Your task to perform on an android device: Open Youtube and go to "Your channel" Image 0: 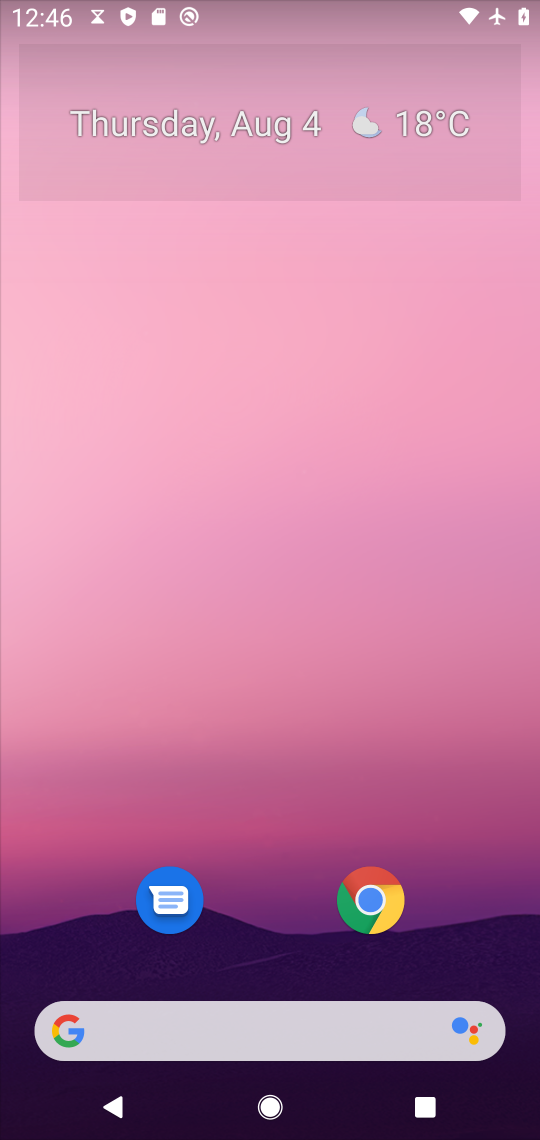
Step 0: drag from (239, 966) to (379, 121)
Your task to perform on an android device: Open Youtube and go to "Your channel" Image 1: 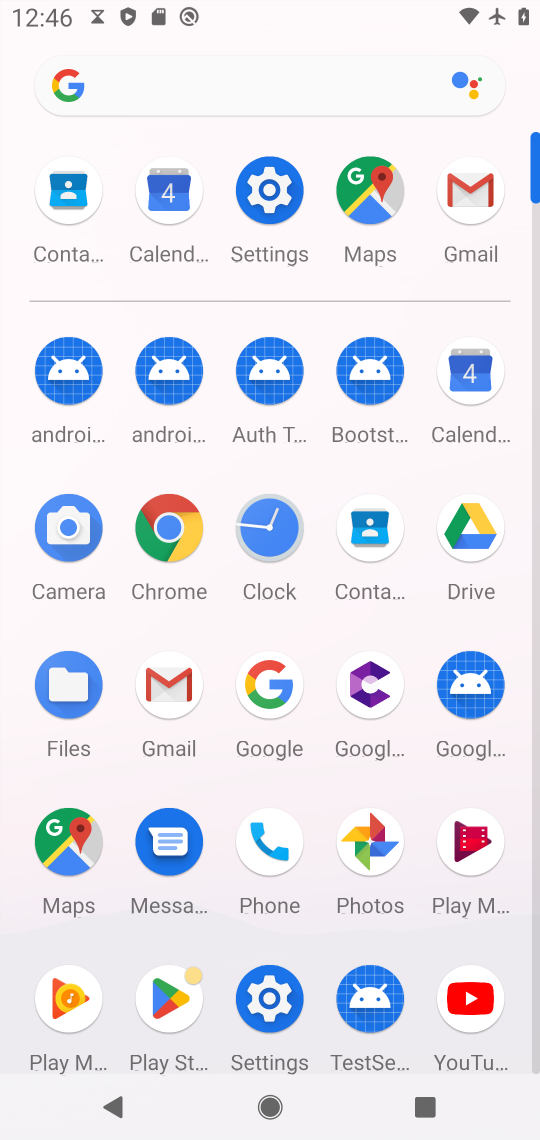
Step 1: click (467, 988)
Your task to perform on an android device: Open Youtube and go to "Your channel" Image 2: 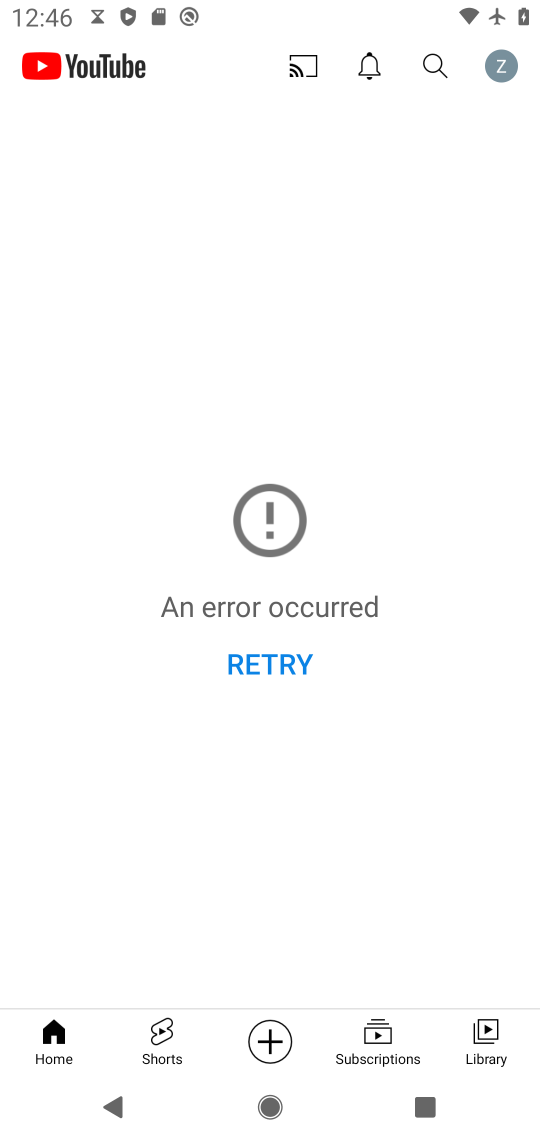
Step 2: click (264, 674)
Your task to perform on an android device: Open Youtube and go to "Your channel" Image 3: 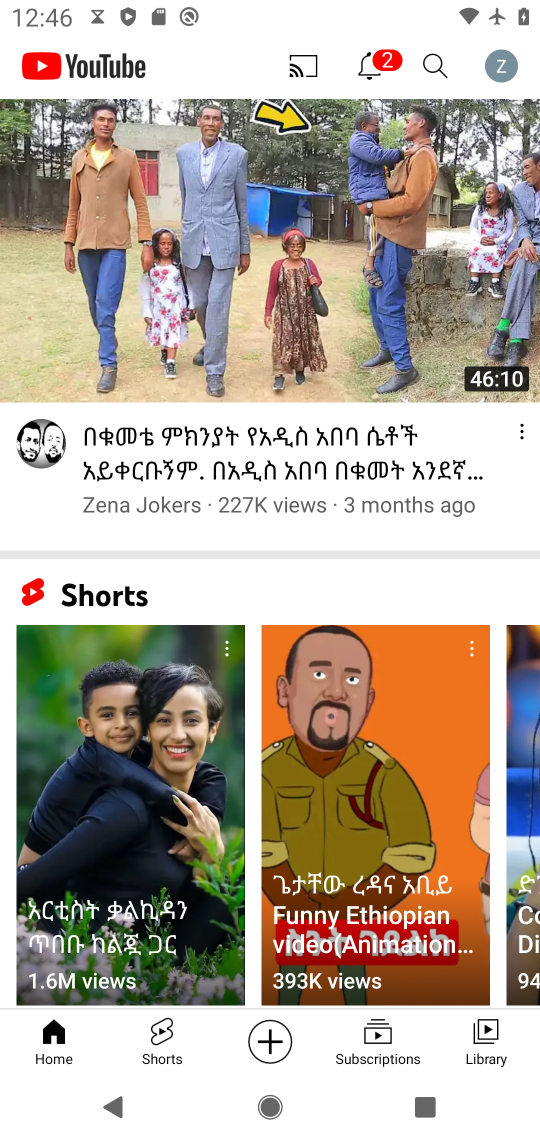
Step 3: click (498, 62)
Your task to perform on an android device: Open Youtube and go to "Your channel" Image 4: 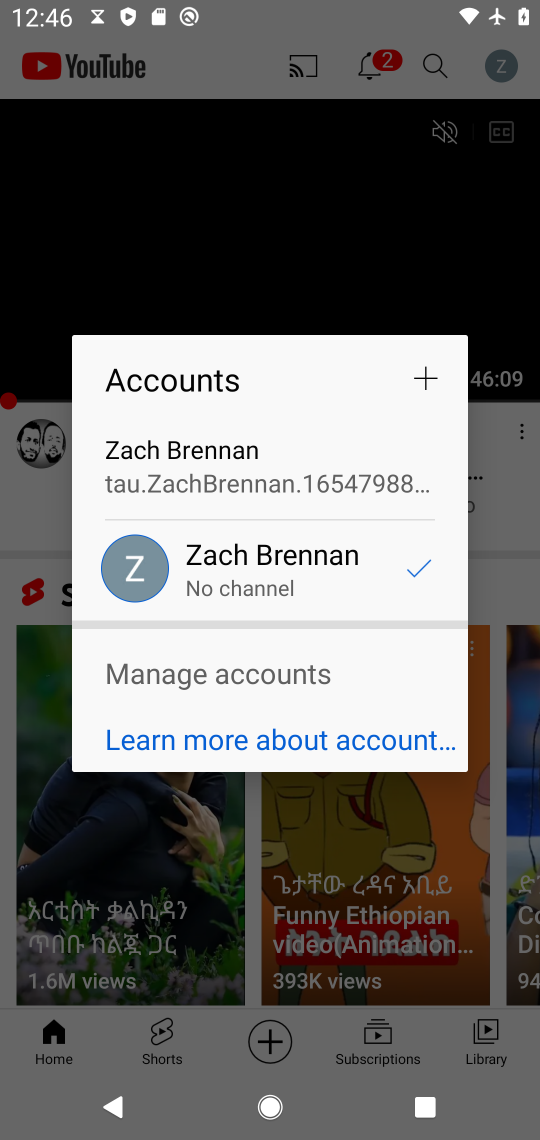
Step 4: click (508, 75)
Your task to perform on an android device: Open Youtube and go to "Your channel" Image 5: 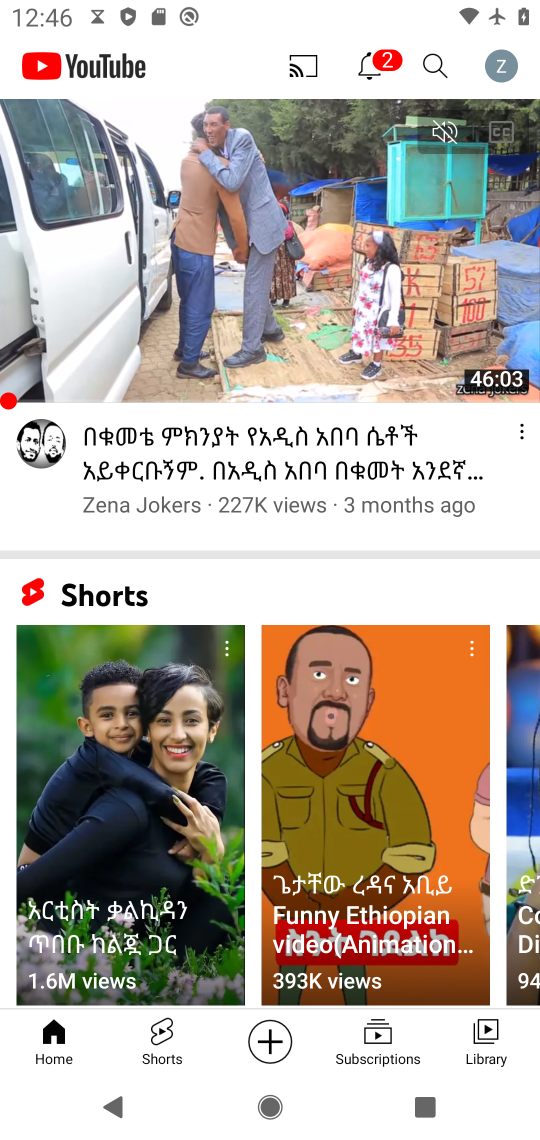
Step 5: click (505, 67)
Your task to perform on an android device: Open Youtube and go to "Your channel" Image 6: 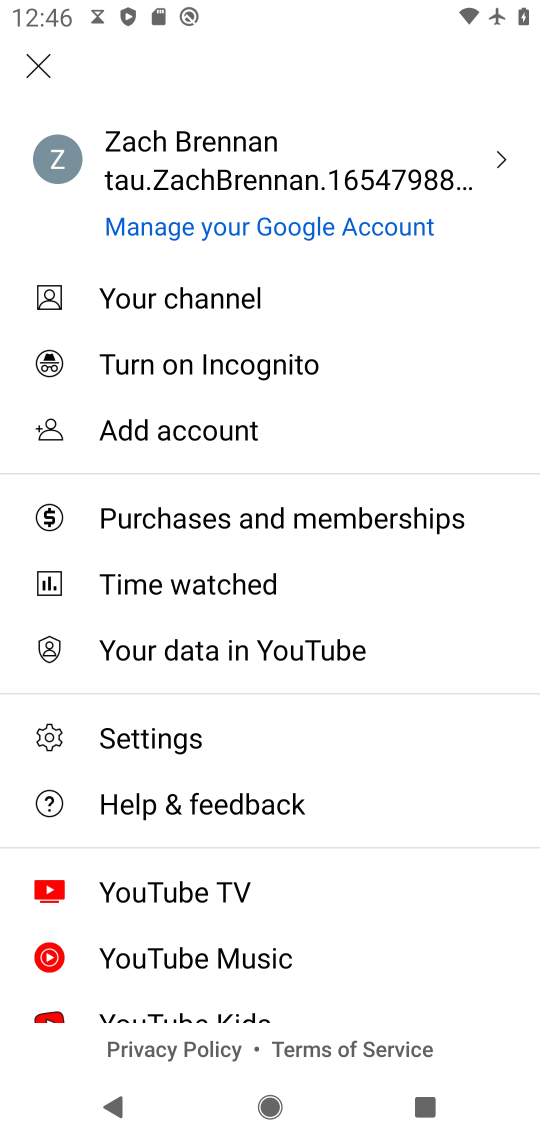
Step 6: click (176, 310)
Your task to perform on an android device: Open Youtube and go to "Your channel" Image 7: 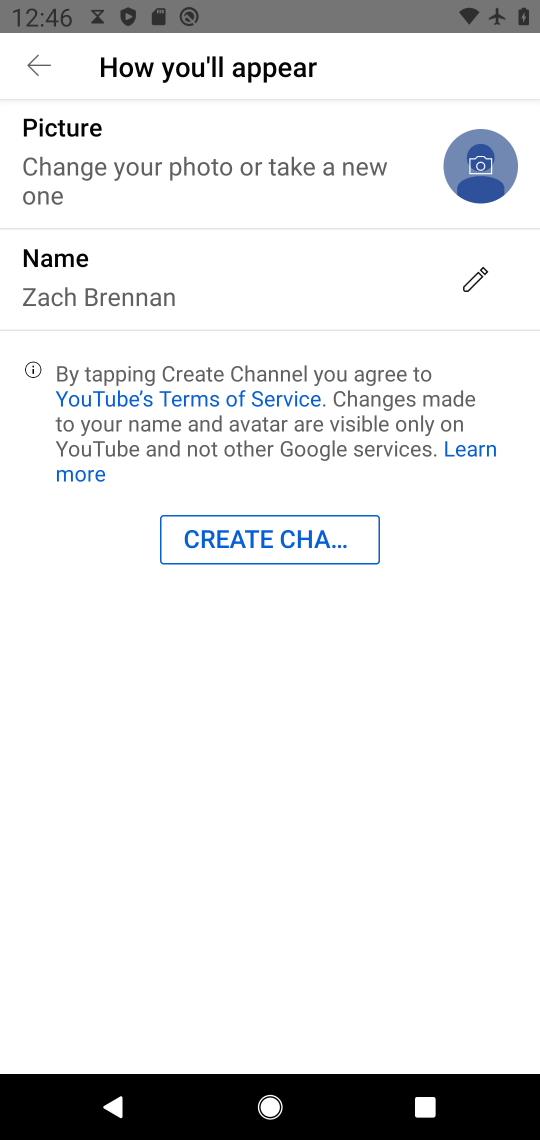
Step 7: task complete